Your task to perform on an android device: Search for seafood restaurants on Google Maps Image 0: 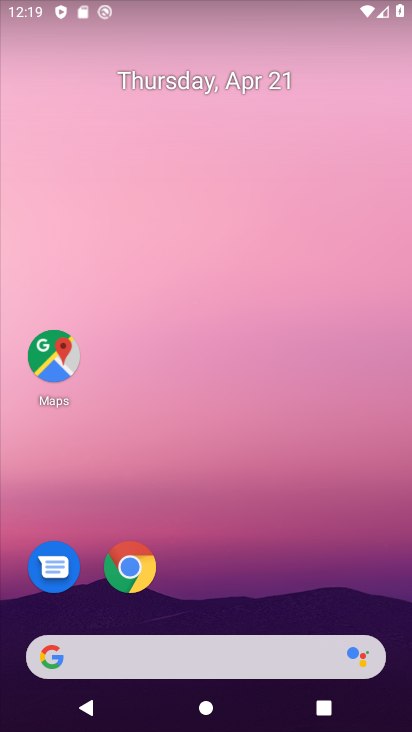
Step 0: click (66, 369)
Your task to perform on an android device: Search for seafood restaurants on Google Maps Image 1: 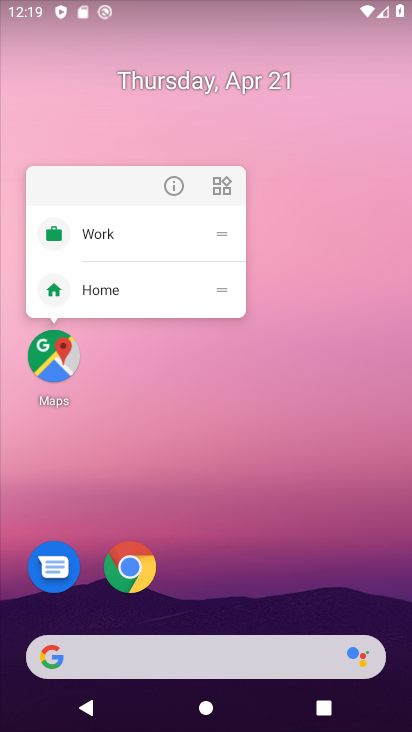
Step 1: click (39, 367)
Your task to perform on an android device: Search for seafood restaurants on Google Maps Image 2: 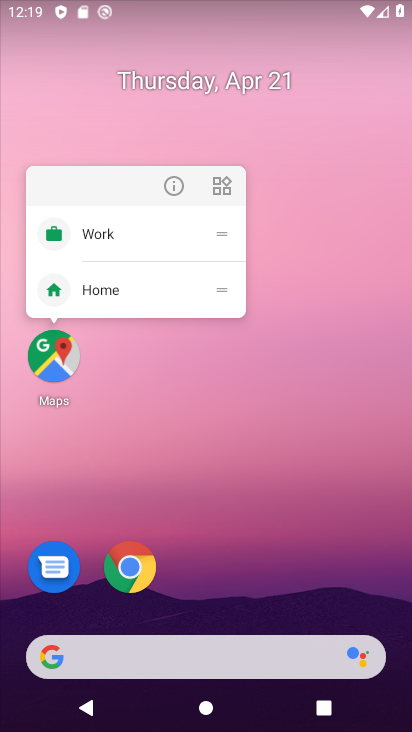
Step 2: click (49, 373)
Your task to perform on an android device: Search for seafood restaurants on Google Maps Image 3: 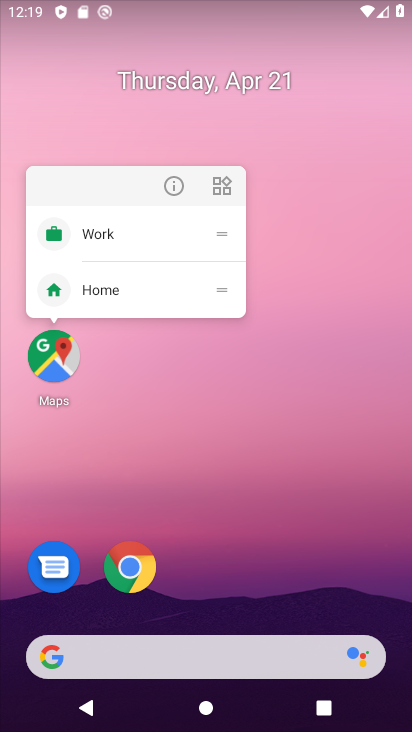
Step 3: click (55, 377)
Your task to perform on an android device: Search for seafood restaurants on Google Maps Image 4: 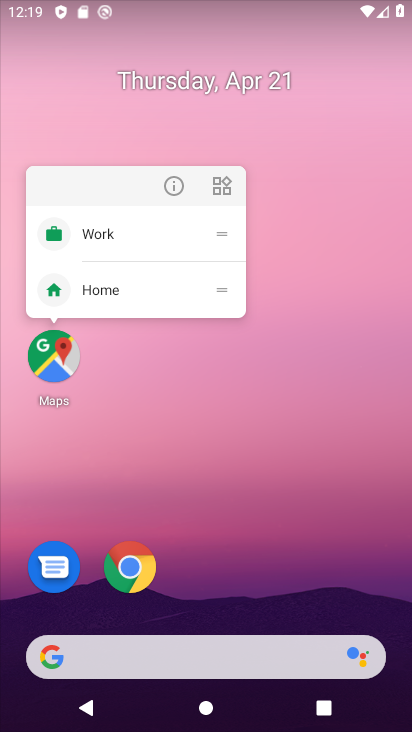
Step 4: click (55, 375)
Your task to perform on an android device: Search for seafood restaurants on Google Maps Image 5: 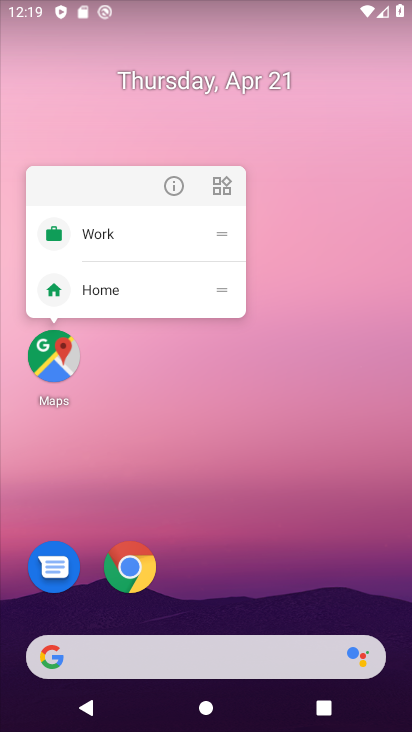
Step 5: click (55, 375)
Your task to perform on an android device: Search for seafood restaurants on Google Maps Image 6: 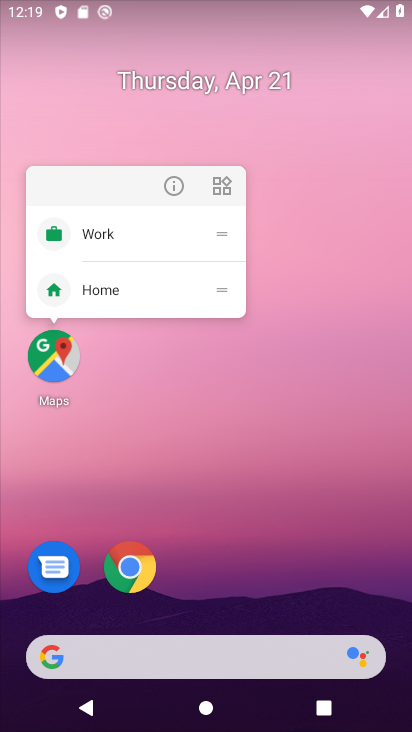
Step 6: click (55, 372)
Your task to perform on an android device: Search for seafood restaurants on Google Maps Image 7: 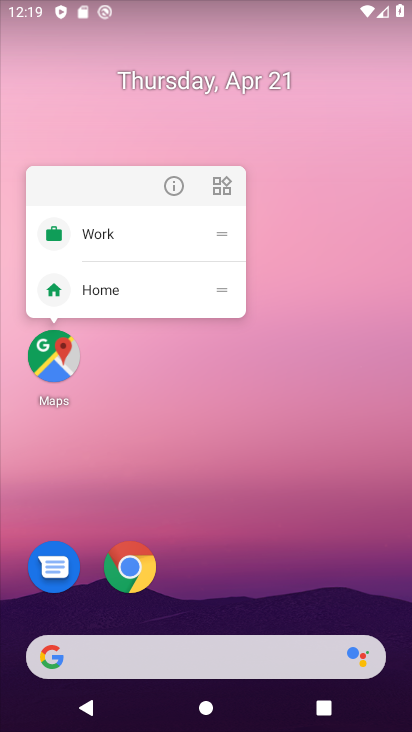
Step 7: click (55, 363)
Your task to perform on an android device: Search for seafood restaurants on Google Maps Image 8: 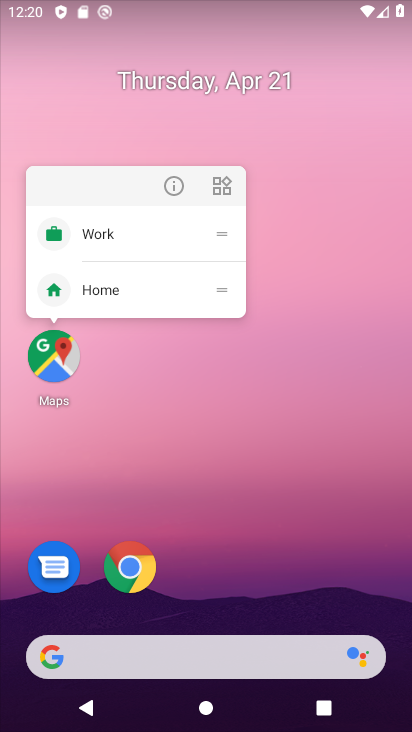
Step 8: drag from (58, 347) to (262, 466)
Your task to perform on an android device: Search for seafood restaurants on Google Maps Image 9: 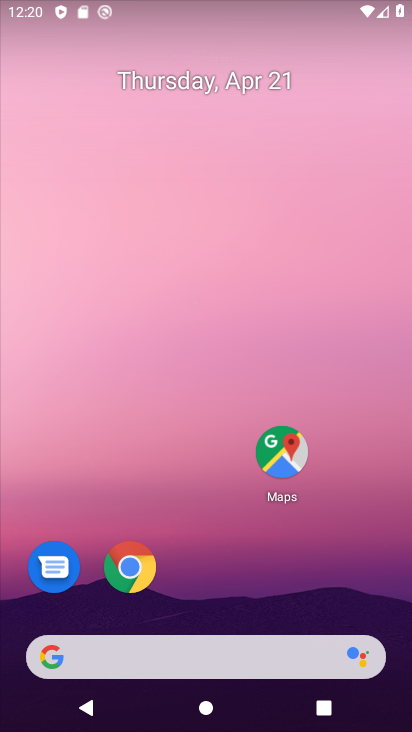
Step 9: drag from (269, 505) to (365, 44)
Your task to perform on an android device: Search for seafood restaurants on Google Maps Image 10: 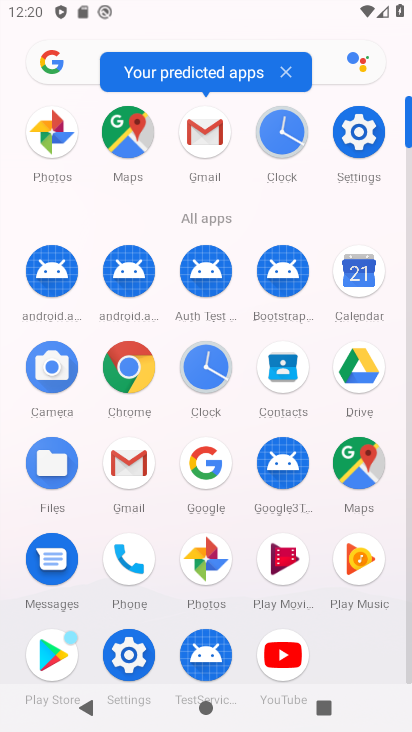
Step 10: click (116, 144)
Your task to perform on an android device: Search for seafood restaurants on Google Maps Image 11: 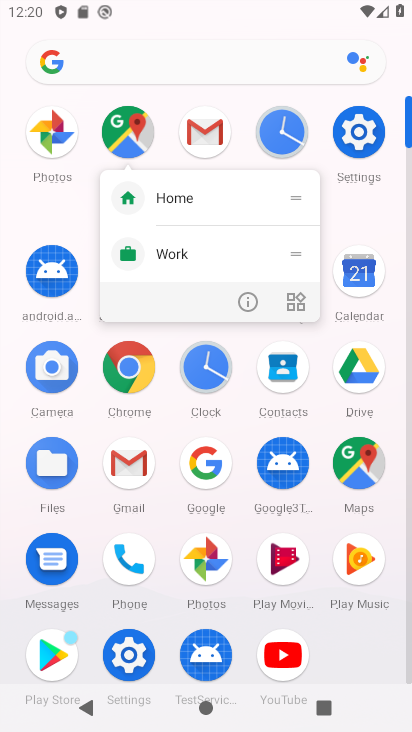
Step 11: click (129, 134)
Your task to perform on an android device: Search for seafood restaurants on Google Maps Image 12: 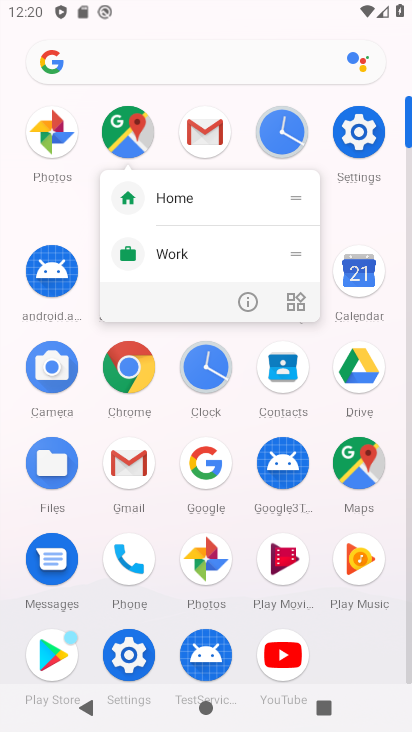
Step 12: click (129, 123)
Your task to perform on an android device: Search for seafood restaurants on Google Maps Image 13: 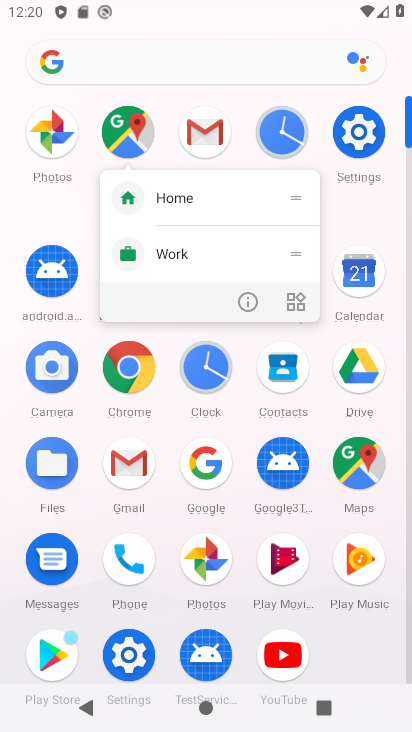
Step 13: click (129, 130)
Your task to perform on an android device: Search for seafood restaurants on Google Maps Image 14: 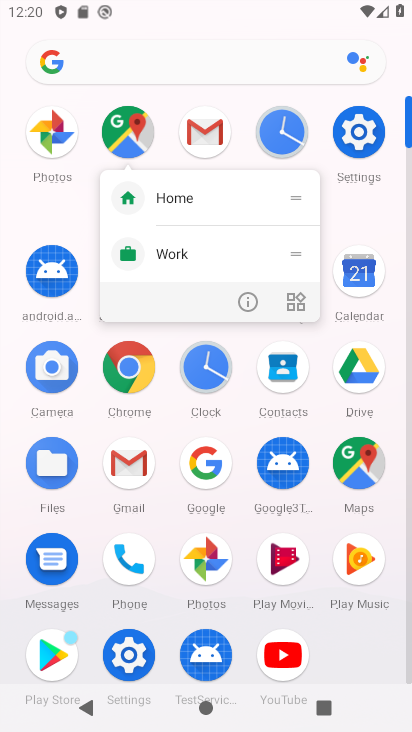
Step 14: click (130, 146)
Your task to perform on an android device: Search for seafood restaurants on Google Maps Image 15: 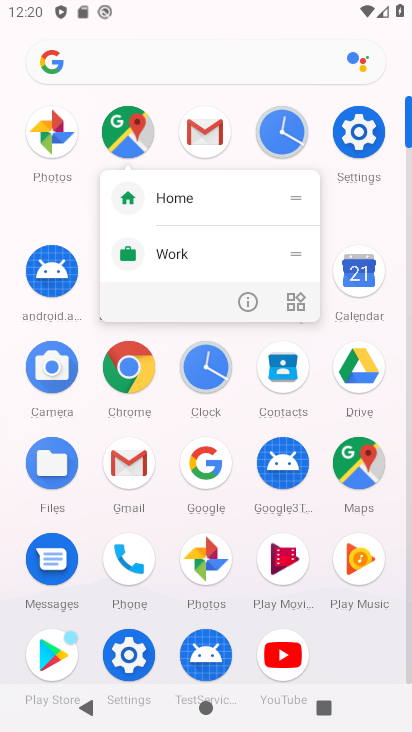
Step 15: click (122, 127)
Your task to perform on an android device: Search for seafood restaurants on Google Maps Image 16: 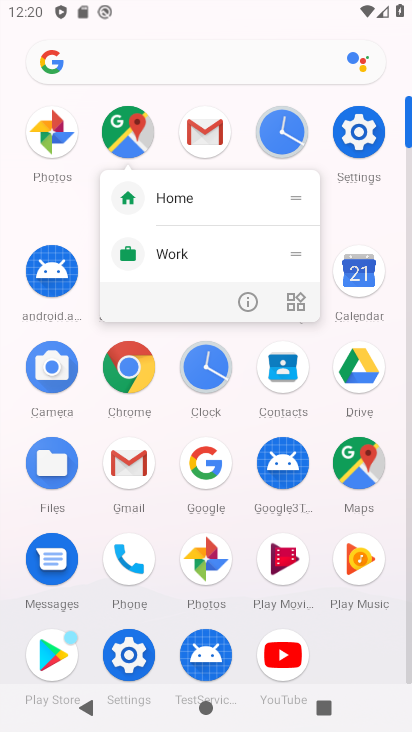
Step 16: click (129, 132)
Your task to perform on an android device: Search for seafood restaurants on Google Maps Image 17: 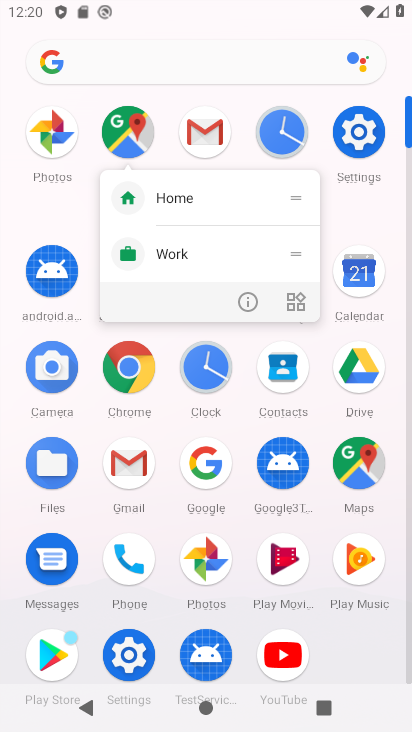
Step 17: click (136, 140)
Your task to perform on an android device: Search for seafood restaurants on Google Maps Image 18: 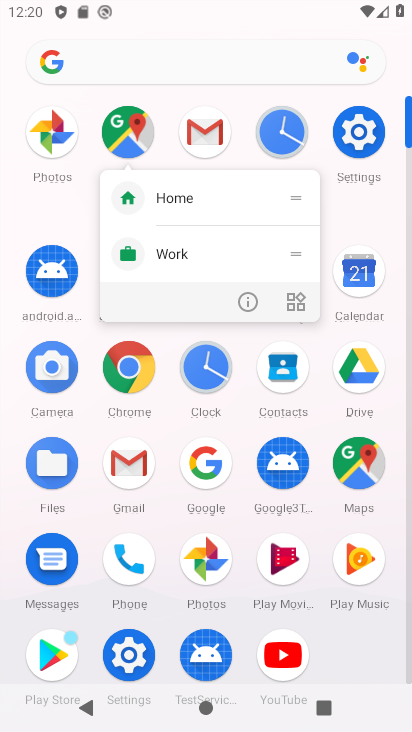
Step 18: click (128, 149)
Your task to perform on an android device: Search for seafood restaurants on Google Maps Image 19: 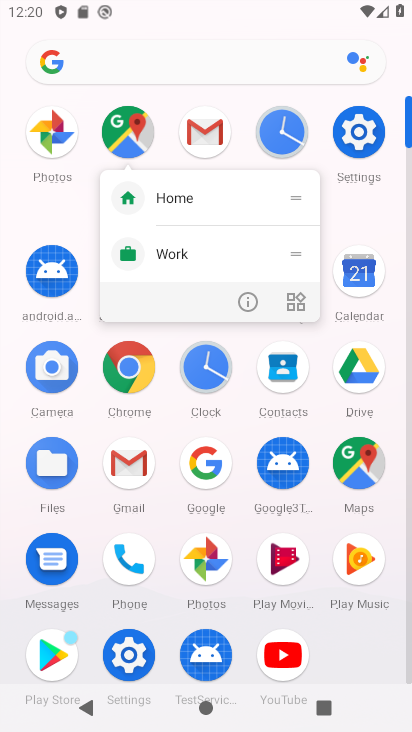
Step 19: click (125, 117)
Your task to perform on an android device: Search for seafood restaurants on Google Maps Image 20: 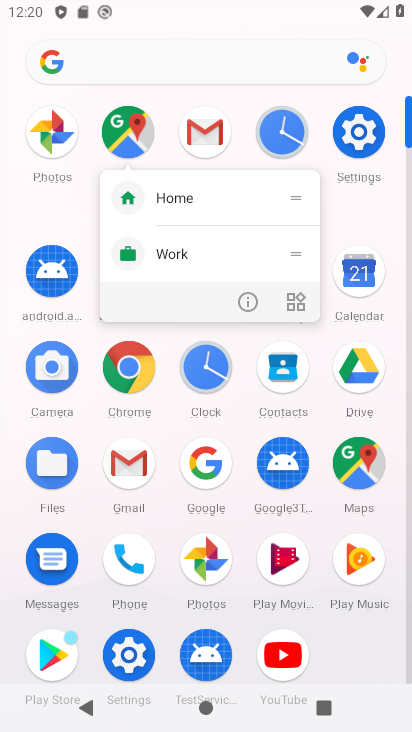
Step 20: click (114, 133)
Your task to perform on an android device: Search for seafood restaurants on Google Maps Image 21: 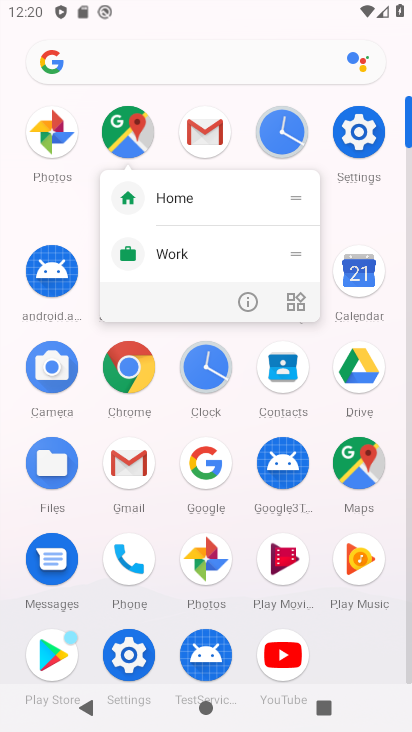
Step 21: click (142, 134)
Your task to perform on an android device: Search for seafood restaurants on Google Maps Image 22: 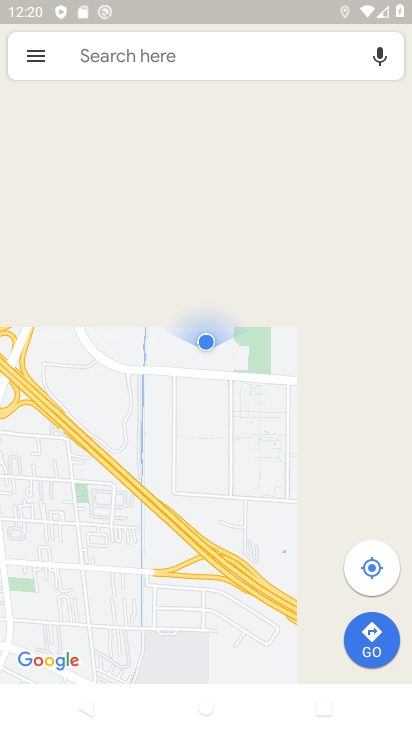
Step 22: click (126, 64)
Your task to perform on an android device: Search for seafood restaurants on Google Maps Image 23: 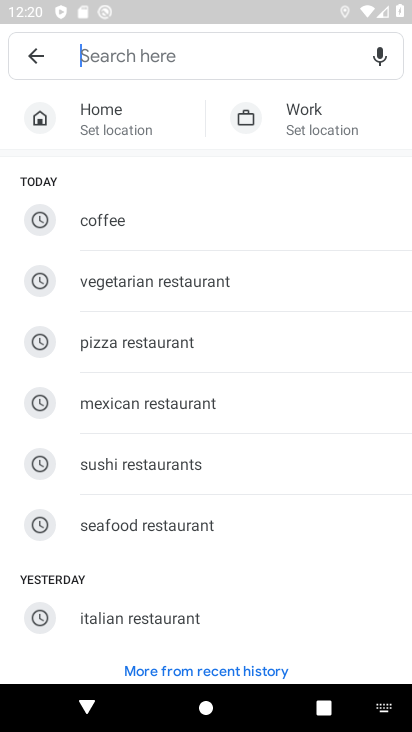
Step 23: type "seafood restaurants"
Your task to perform on an android device: Search for seafood restaurants on Google Maps Image 24: 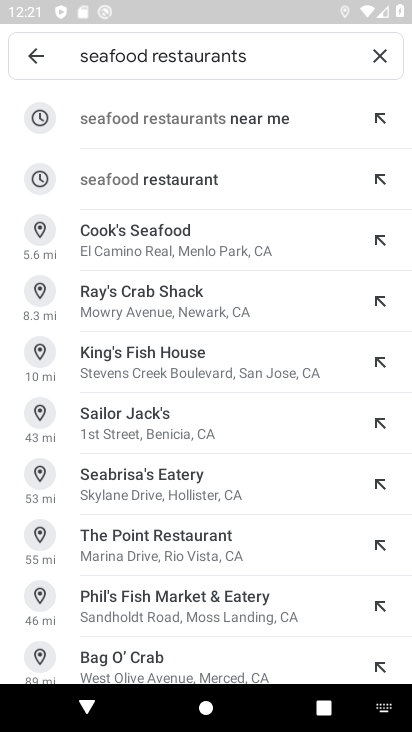
Step 24: click (240, 178)
Your task to perform on an android device: Search for seafood restaurants on Google Maps Image 25: 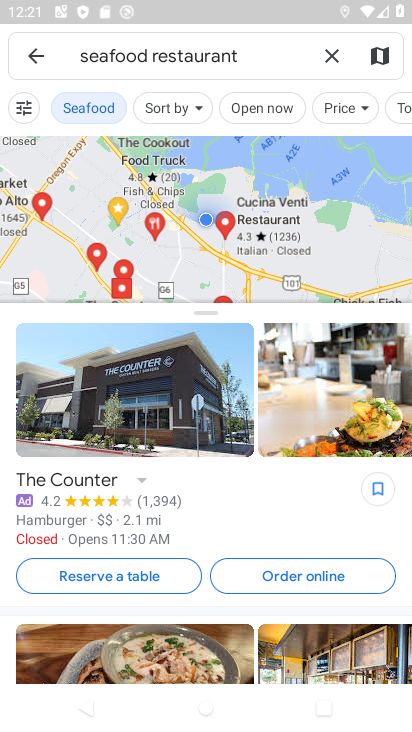
Step 25: task complete